Your task to perform on an android device: turn off data saver in the chrome app Image 0: 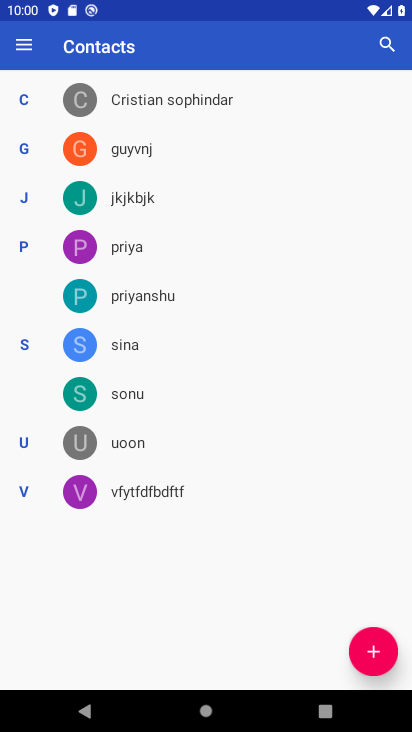
Step 0: press home button
Your task to perform on an android device: turn off data saver in the chrome app Image 1: 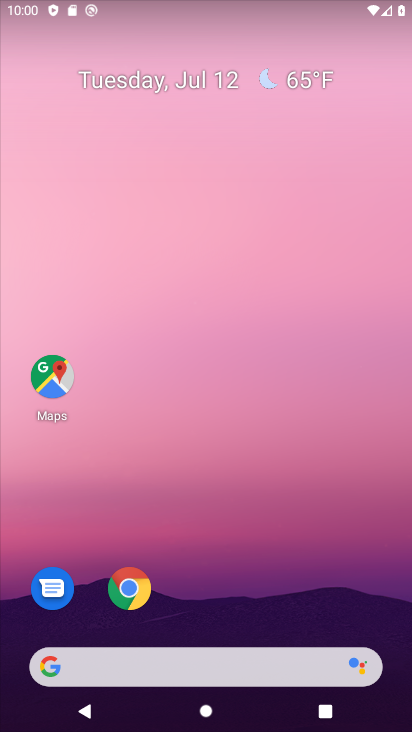
Step 1: click (125, 586)
Your task to perform on an android device: turn off data saver in the chrome app Image 2: 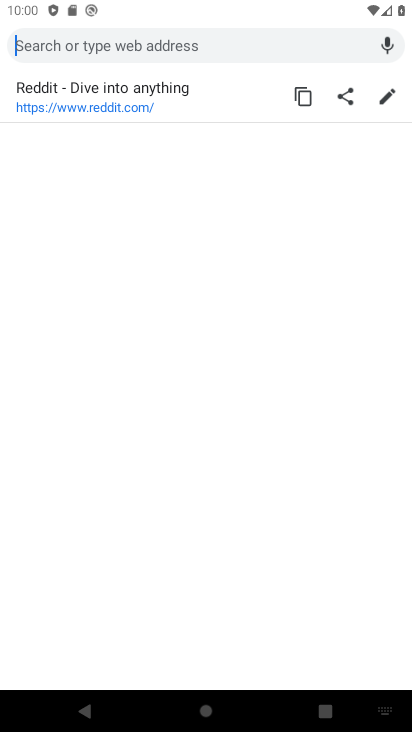
Step 2: click (171, 42)
Your task to perform on an android device: turn off data saver in the chrome app Image 3: 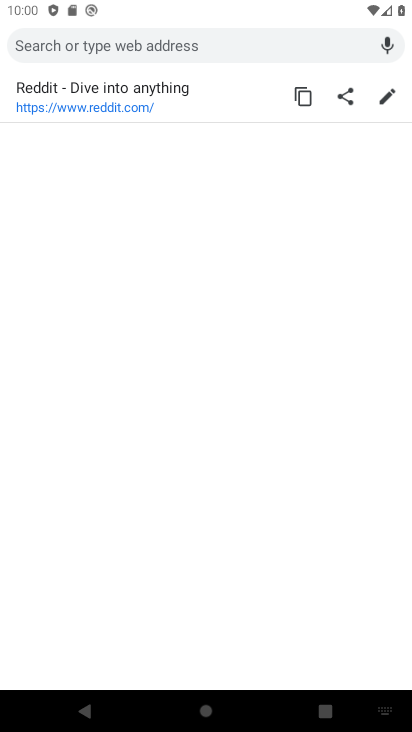
Step 3: click (171, 42)
Your task to perform on an android device: turn off data saver in the chrome app Image 4: 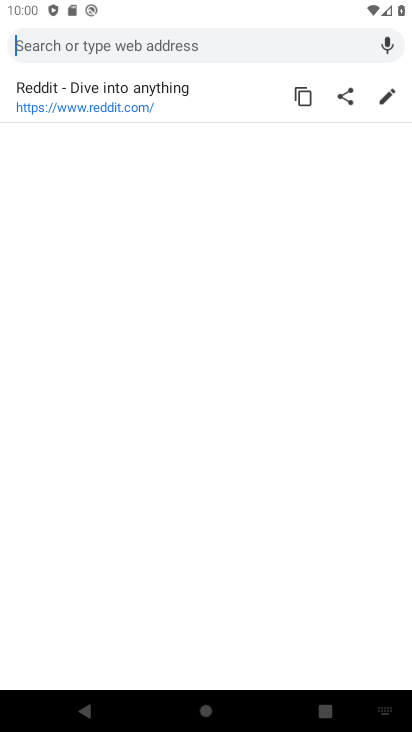
Step 4: click (133, 167)
Your task to perform on an android device: turn off data saver in the chrome app Image 5: 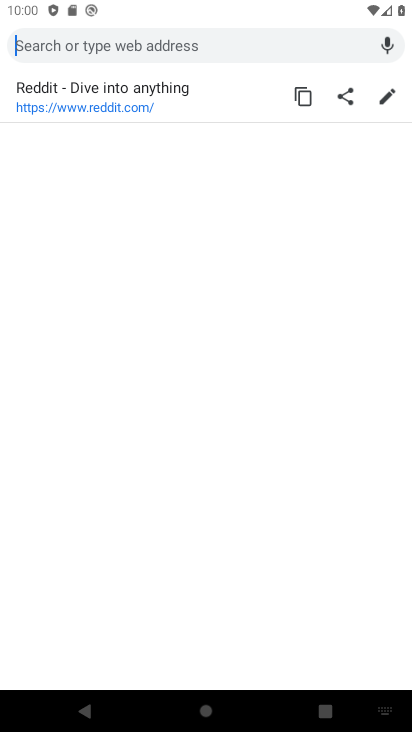
Step 5: click (102, 162)
Your task to perform on an android device: turn off data saver in the chrome app Image 6: 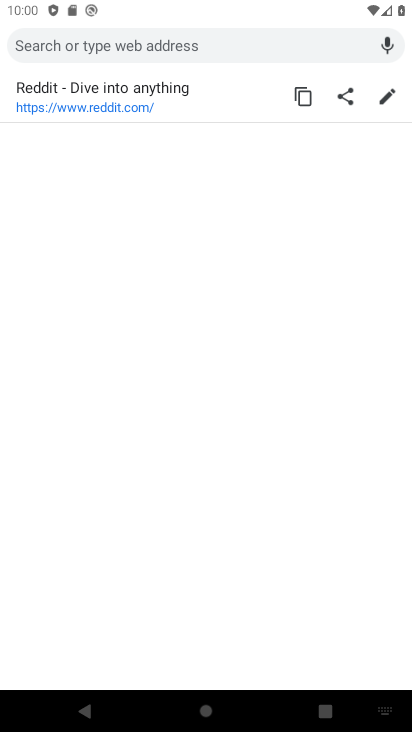
Step 6: task complete